Your task to perform on an android device: add a contact in the contacts app Image 0: 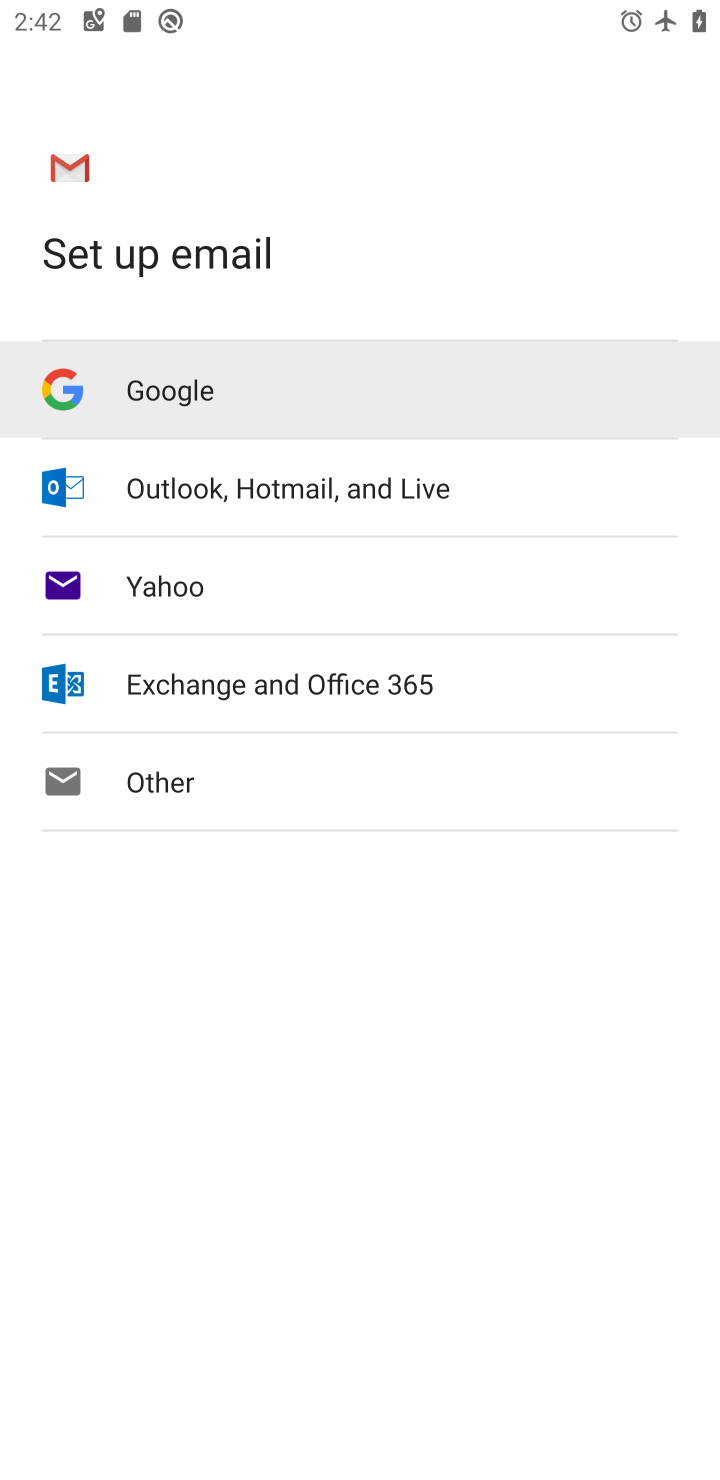
Step 0: press home button
Your task to perform on an android device: add a contact in the contacts app Image 1: 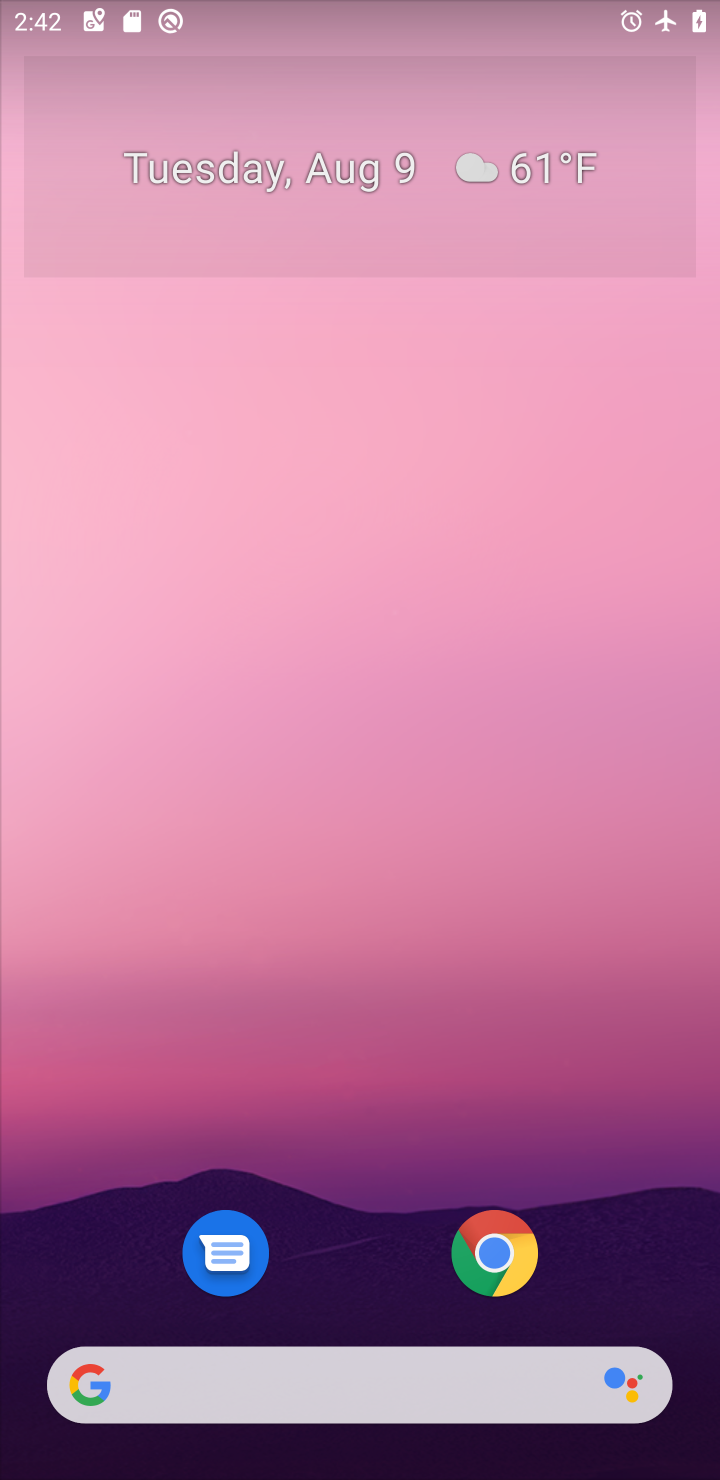
Step 1: drag from (525, 906) to (284, 103)
Your task to perform on an android device: add a contact in the contacts app Image 2: 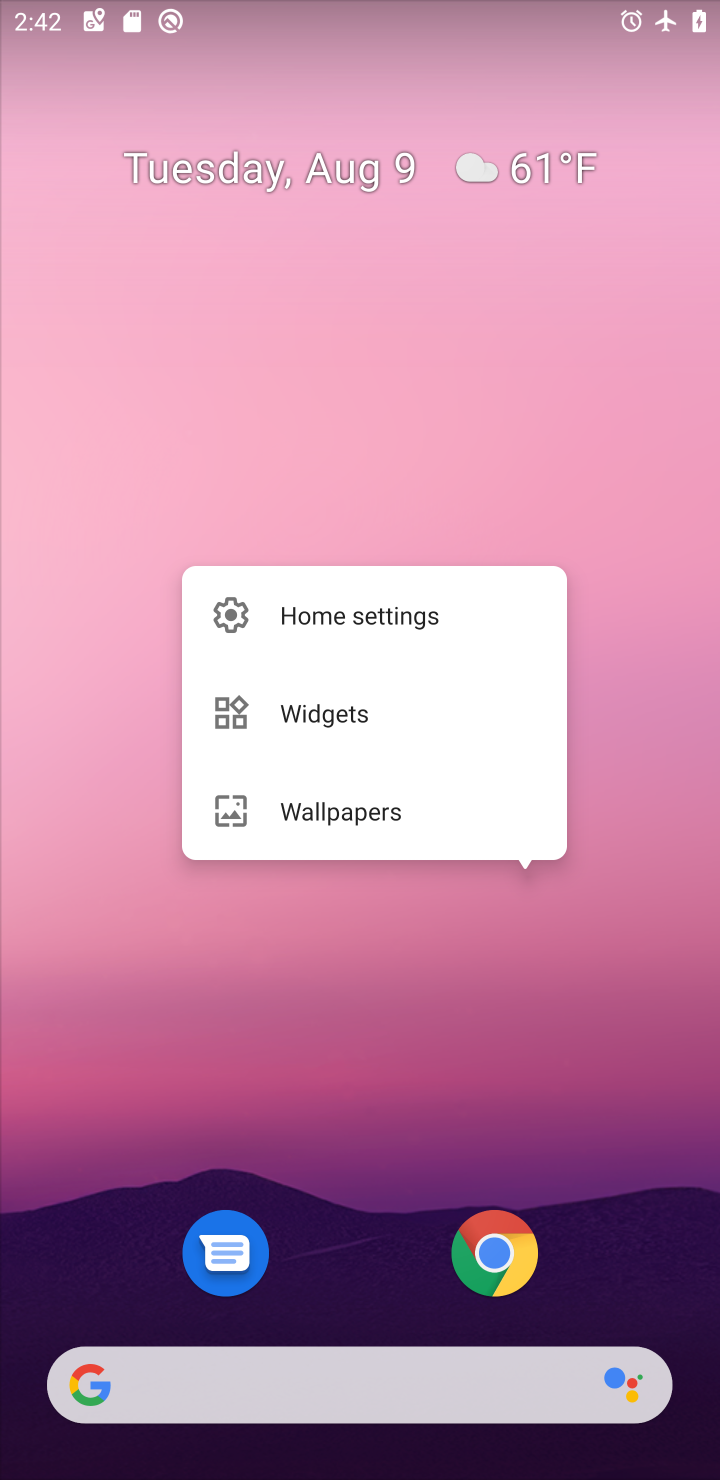
Step 2: click (652, 1017)
Your task to perform on an android device: add a contact in the contacts app Image 3: 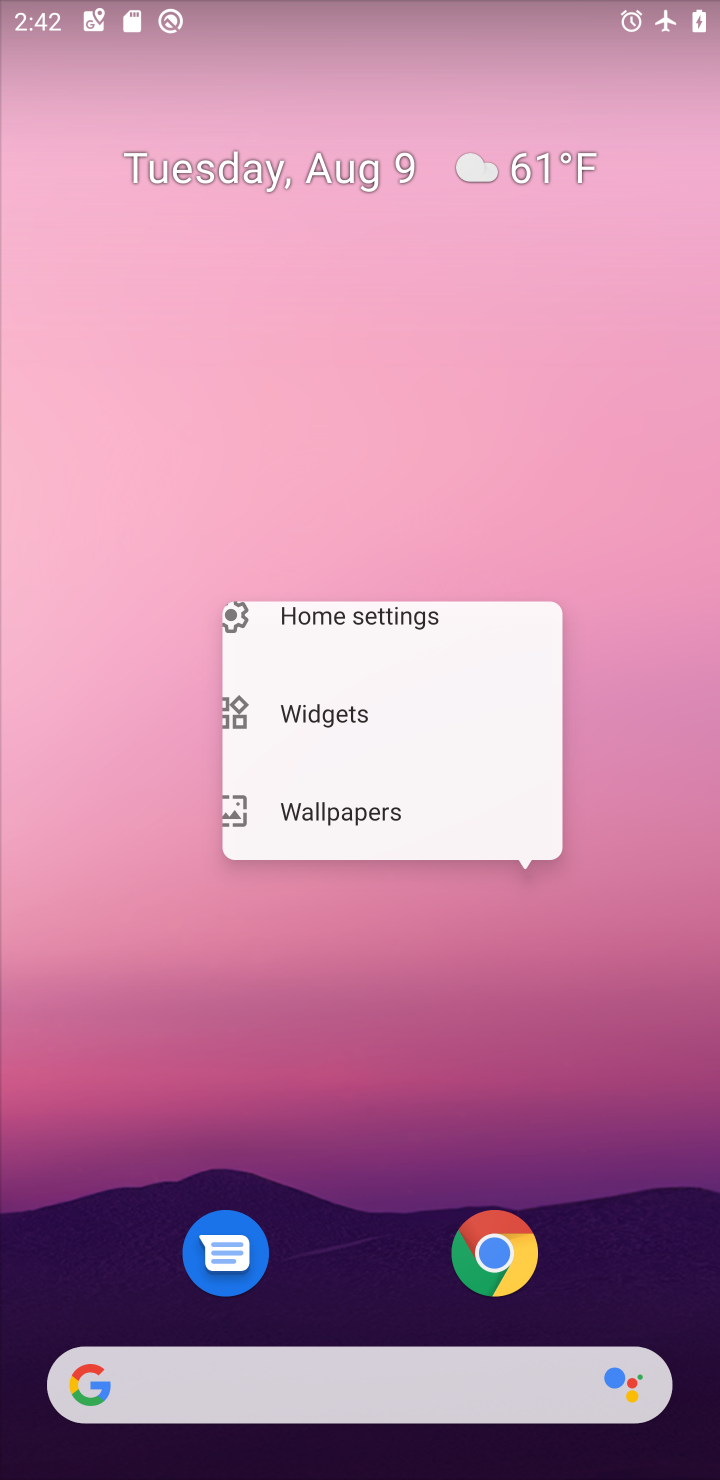
Step 3: drag from (643, 1285) to (255, 8)
Your task to perform on an android device: add a contact in the contacts app Image 4: 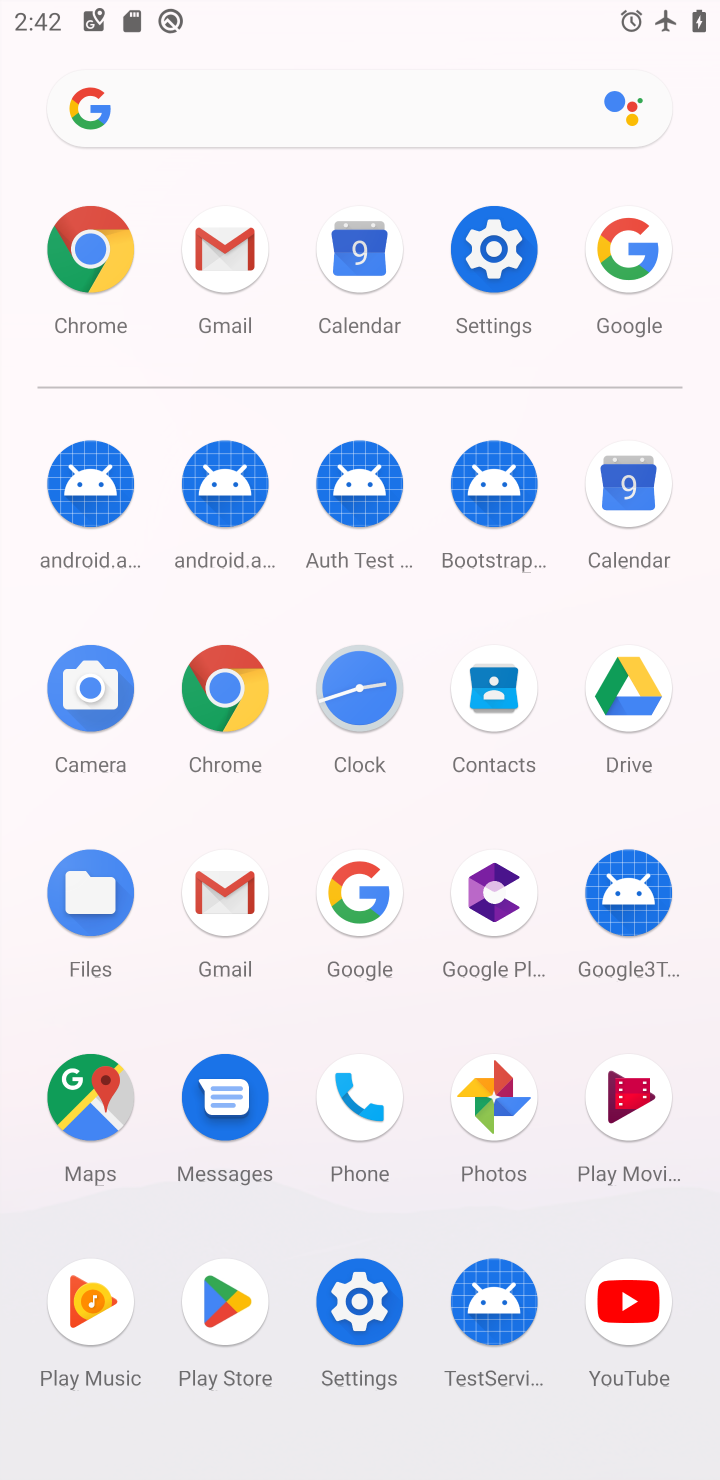
Step 4: click (487, 699)
Your task to perform on an android device: add a contact in the contacts app Image 5: 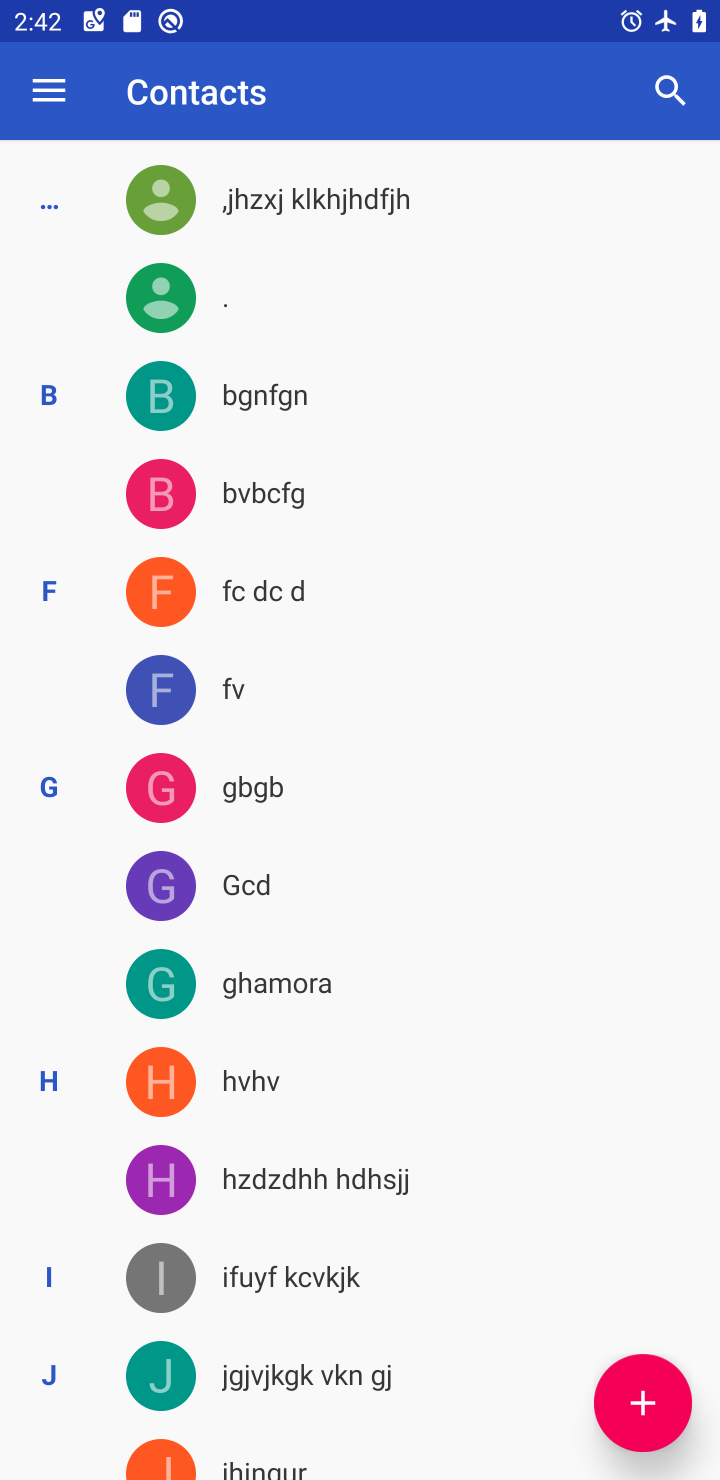
Step 5: click (668, 1409)
Your task to perform on an android device: add a contact in the contacts app Image 6: 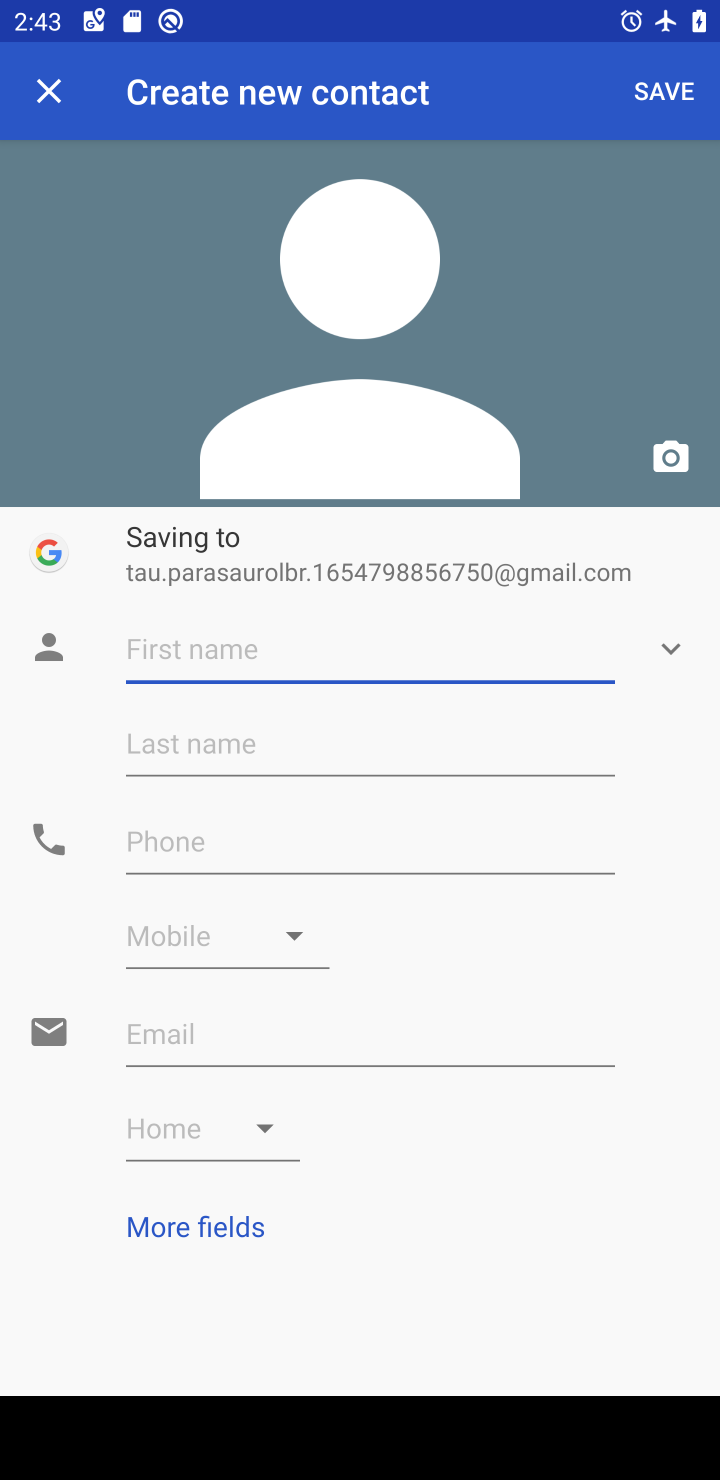
Step 6: type "farak"
Your task to perform on an android device: add a contact in the contacts app Image 7: 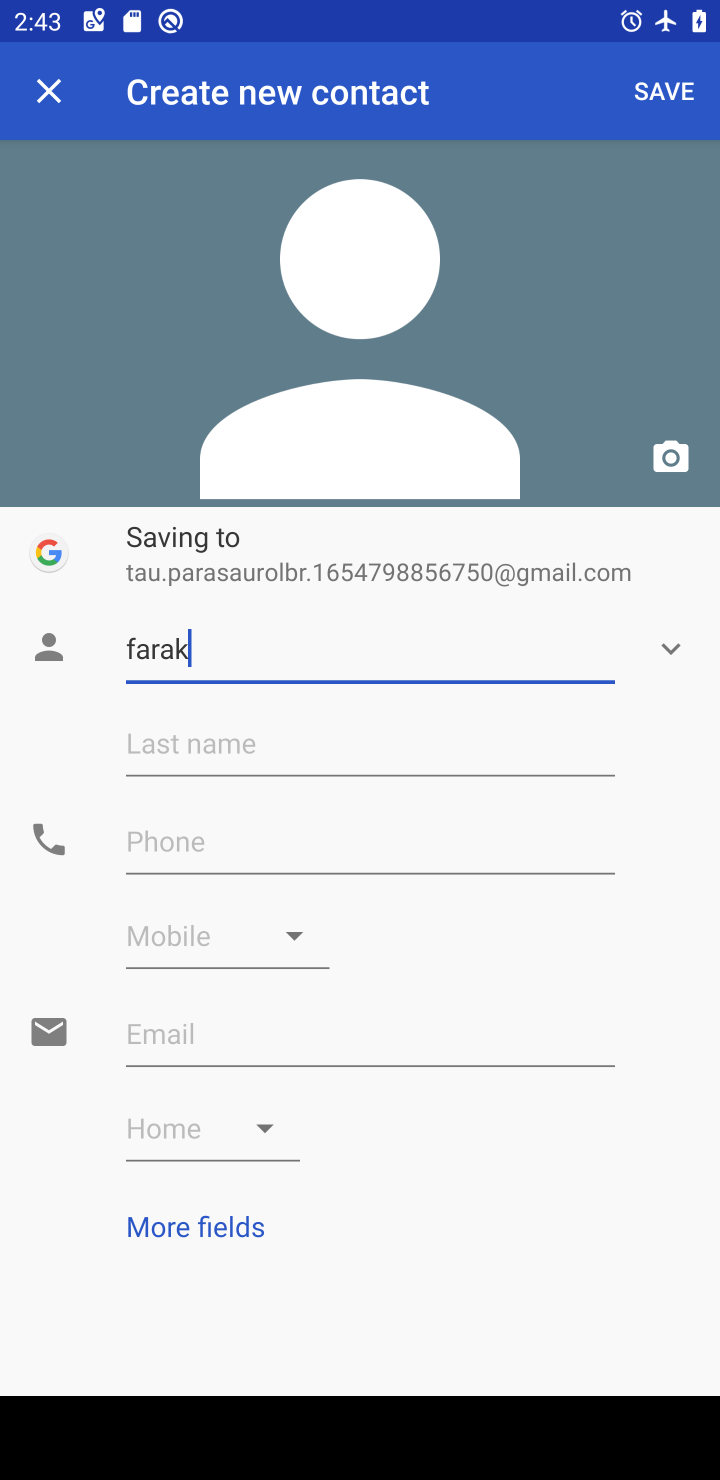
Step 7: click (653, 92)
Your task to perform on an android device: add a contact in the contacts app Image 8: 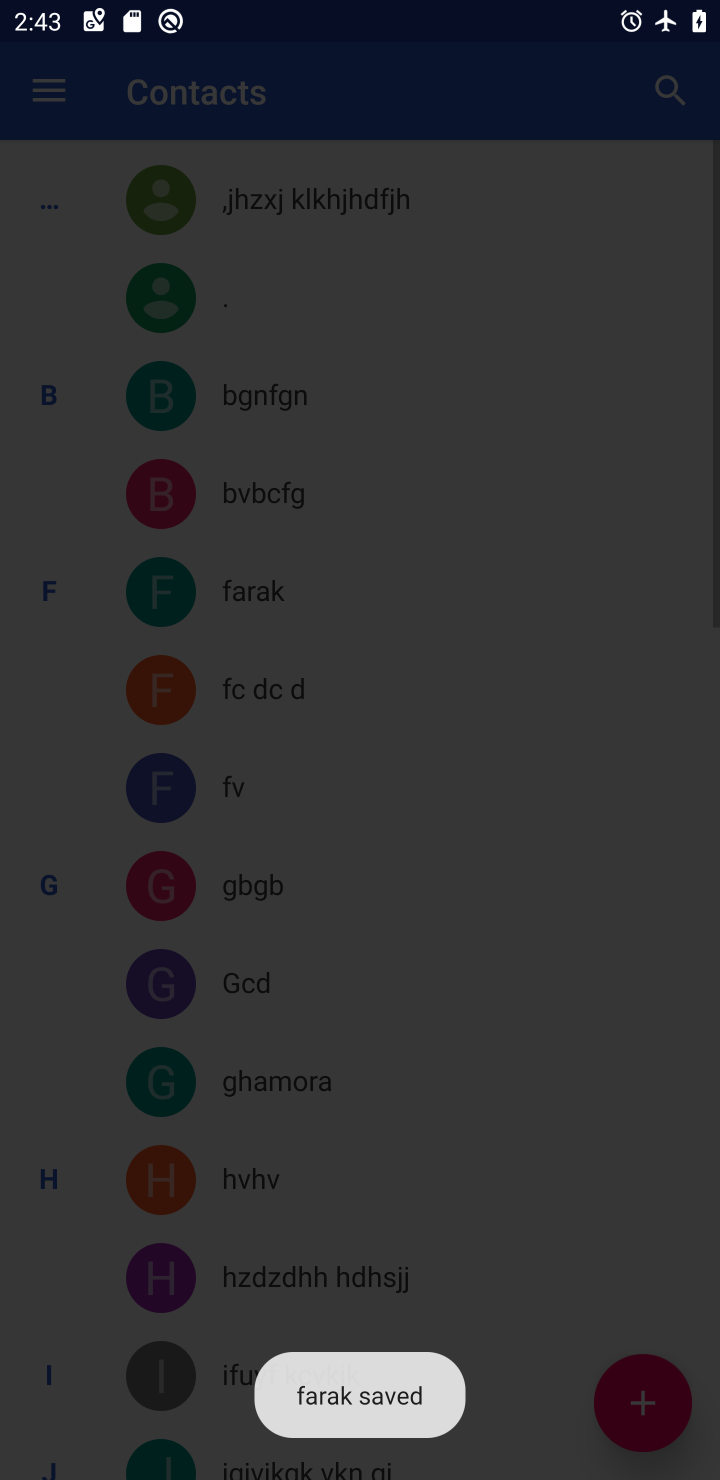
Step 8: task complete